Your task to perform on an android device: read, delete, or share a saved page in the chrome app Image 0: 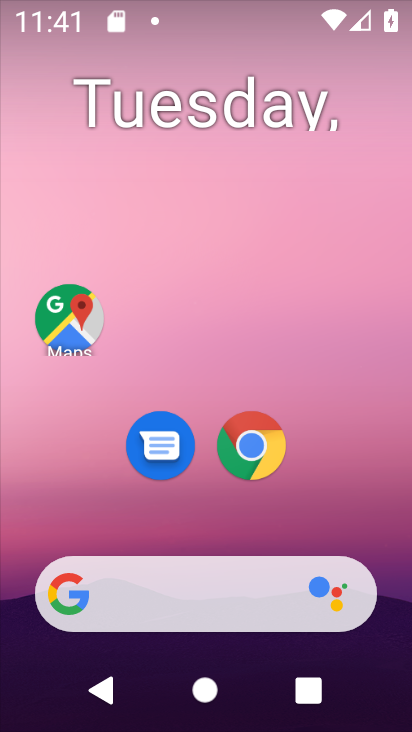
Step 0: drag from (370, 606) to (234, 31)
Your task to perform on an android device: read, delete, or share a saved page in the chrome app Image 1: 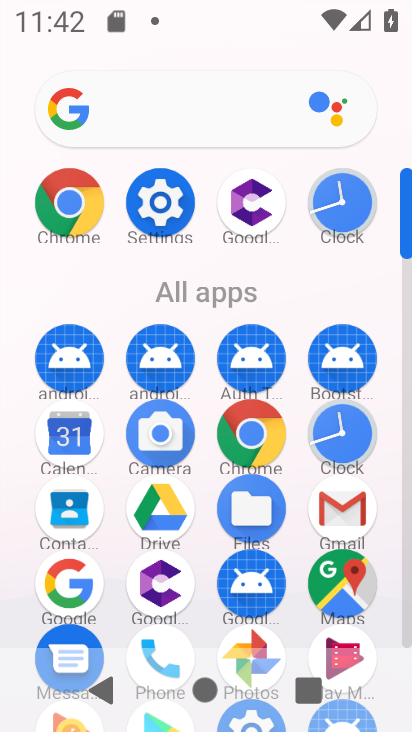
Step 1: drag from (290, 629) to (256, 135)
Your task to perform on an android device: read, delete, or share a saved page in the chrome app Image 2: 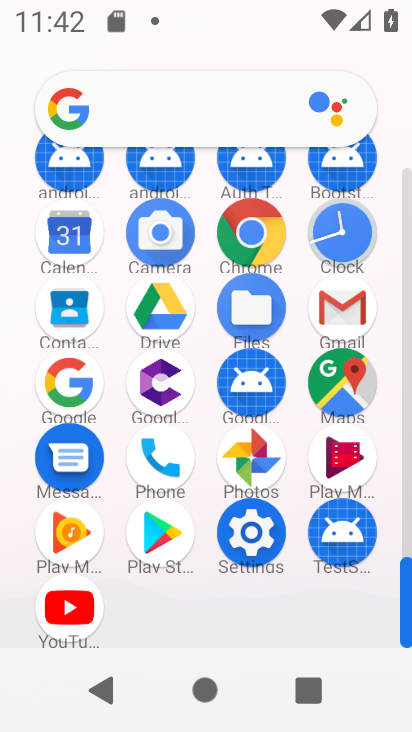
Step 2: click (240, 244)
Your task to perform on an android device: read, delete, or share a saved page in the chrome app Image 3: 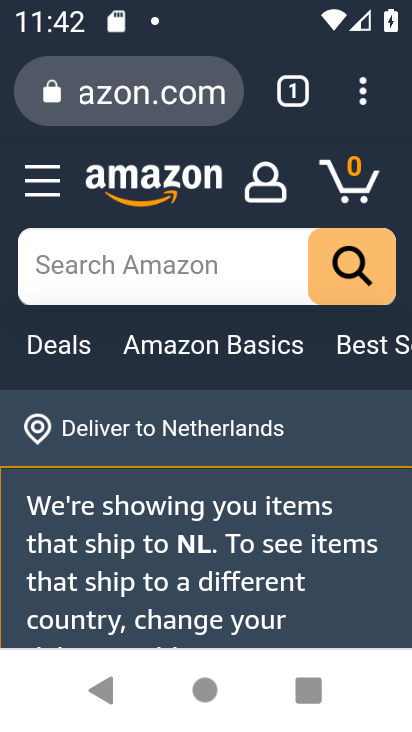
Step 3: task complete